Your task to perform on an android device: Open CNN.com Image 0: 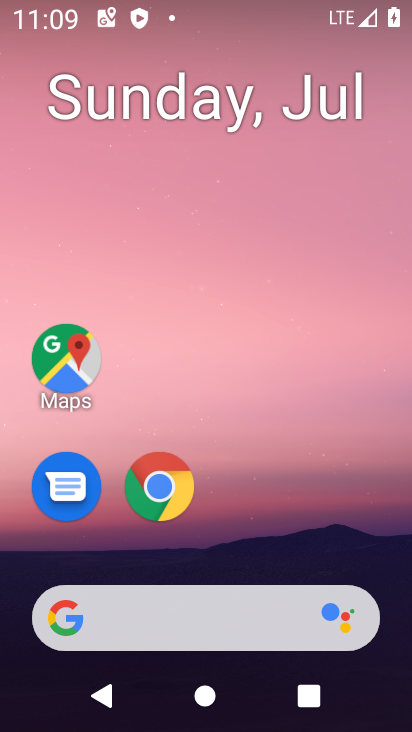
Step 0: press home button
Your task to perform on an android device: Open CNN.com Image 1: 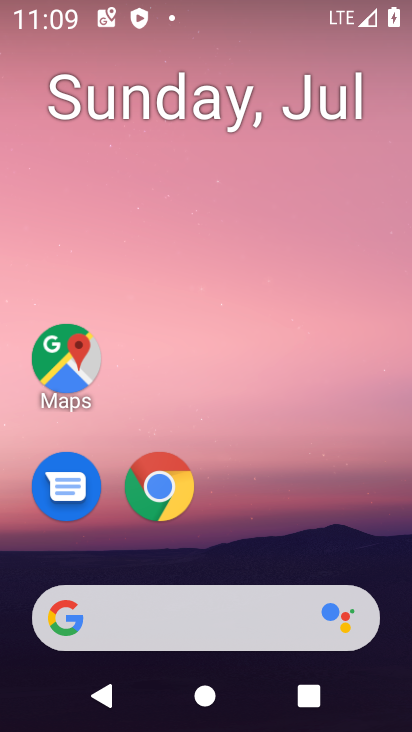
Step 1: drag from (384, 545) to (388, 62)
Your task to perform on an android device: Open CNN.com Image 2: 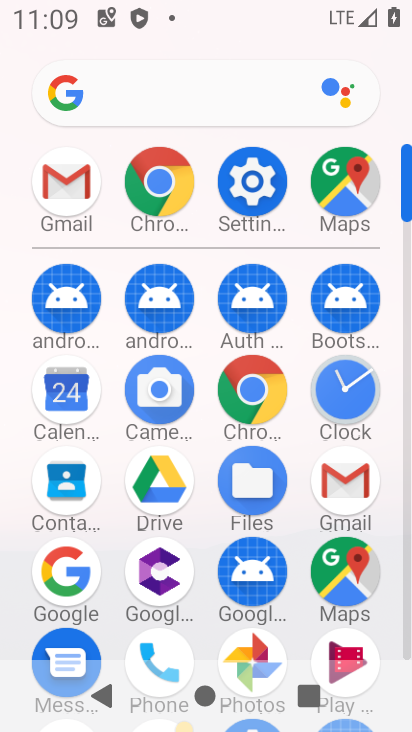
Step 2: click (256, 386)
Your task to perform on an android device: Open CNN.com Image 3: 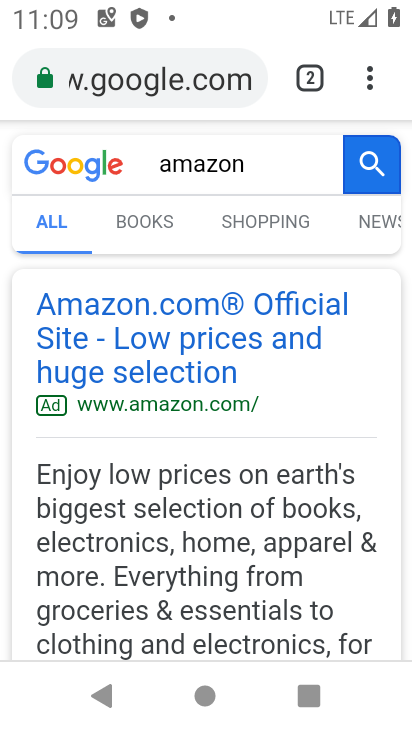
Step 3: click (205, 90)
Your task to perform on an android device: Open CNN.com Image 4: 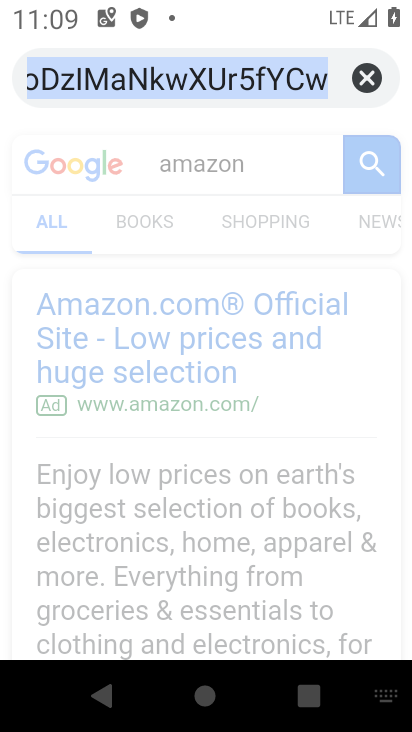
Step 4: type "cnn.com"
Your task to perform on an android device: Open CNN.com Image 5: 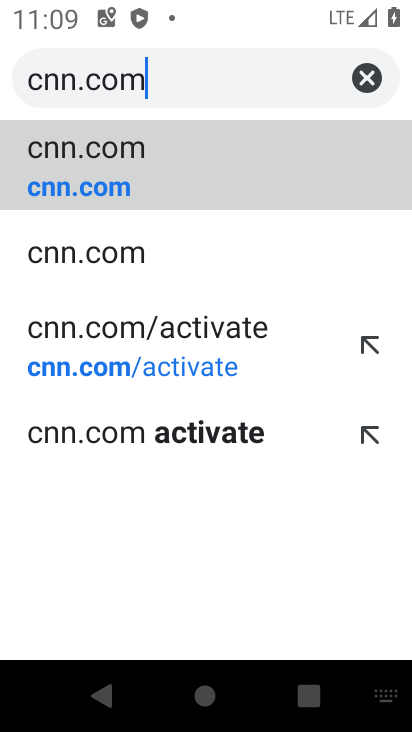
Step 5: click (303, 186)
Your task to perform on an android device: Open CNN.com Image 6: 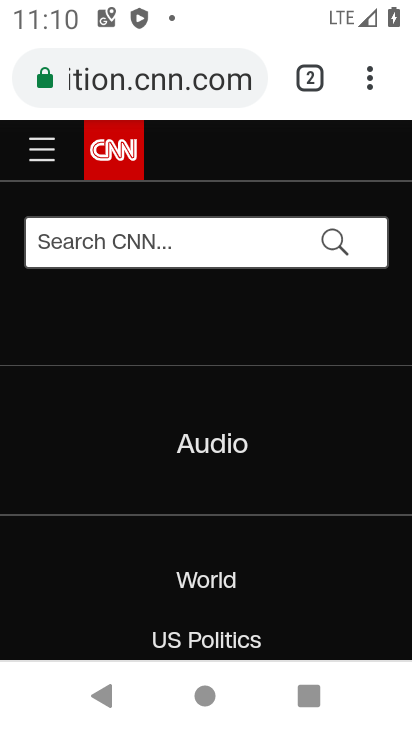
Step 6: task complete